Your task to perform on an android device: search for starred emails in the gmail app Image 0: 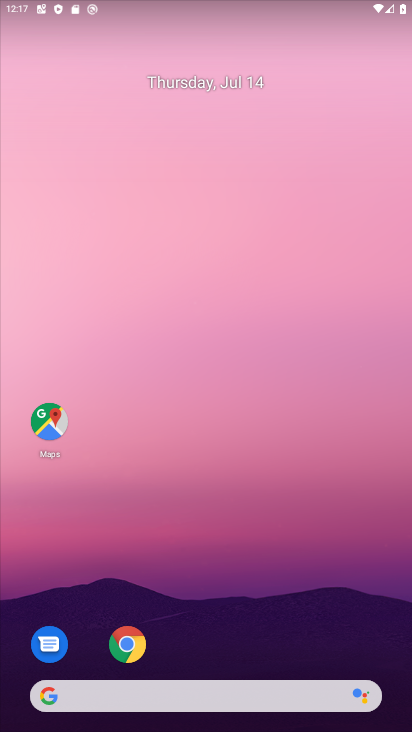
Step 0: drag from (326, 679) to (395, 14)
Your task to perform on an android device: search for starred emails in the gmail app Image 1: 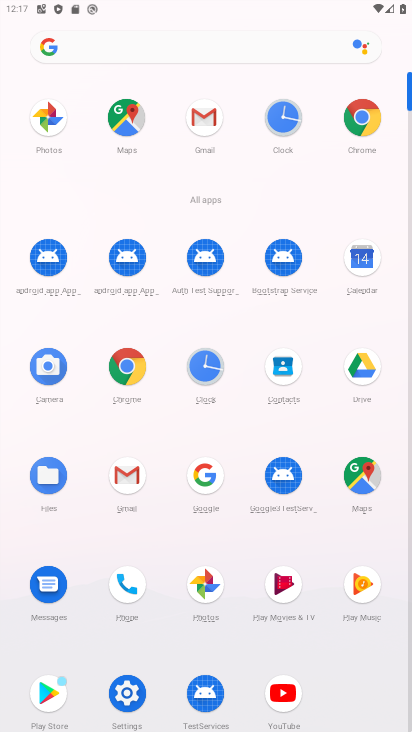
Step 1: click (123, 476)
Your task to perform on an android device: search for starred emails in the gmail app Image 2: 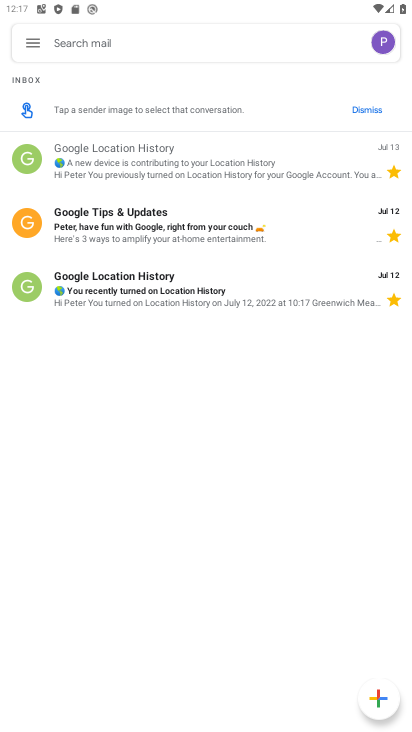
Step 2: press home button
Your task to perform on an android device: search for starred emails in the gmail app Image 3: 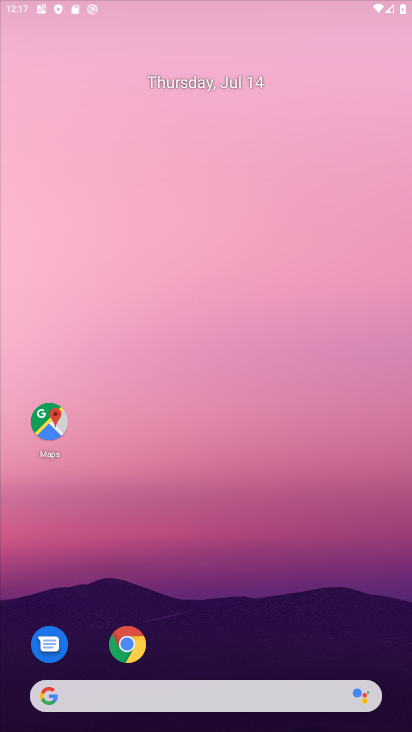
Step 3: drag from (99, 689) to (125, 3)
Your task to perform on an android device: search for starred emails in the gmail app Image 4: 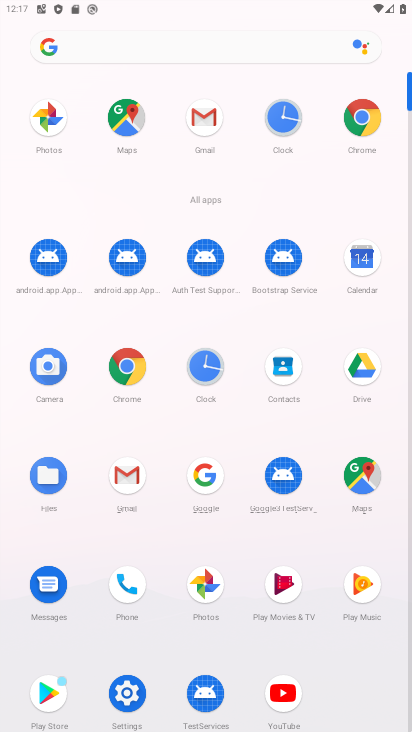
Step 4: click (145, 478)
Your task to perform on an android device: search for starred emails in the gmail app Image 5: 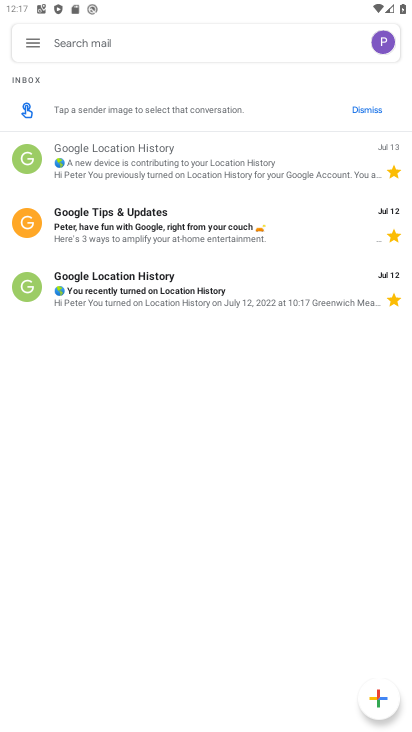
Step 5: press home button
Your task to perform on an android device: search for starred emails in the gmail app Image 6: 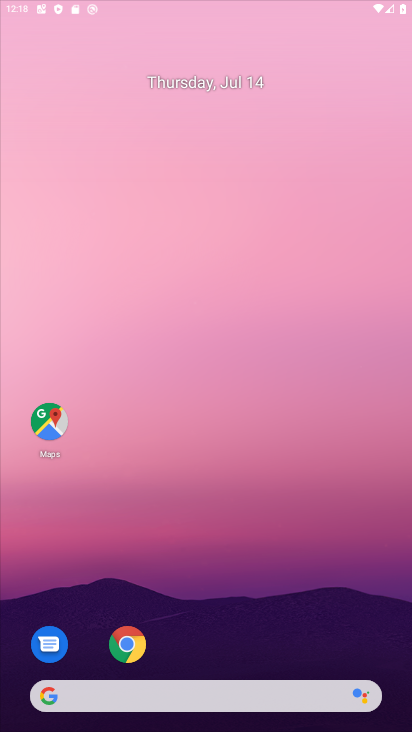
Step 6: drag from (201, 622) to (221, 7)
Your task to perform on an android device: search for starred emails in the gmail app Image 7: 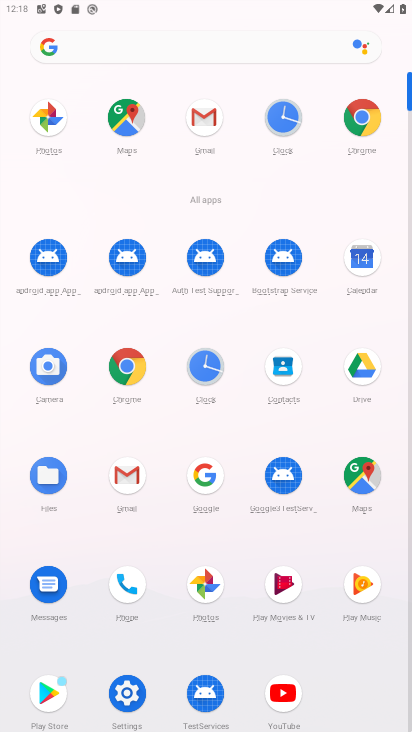
Step 7: click (128, 467)
Your task to perform on an android device: search for starred emails in the gmail app Image 8: 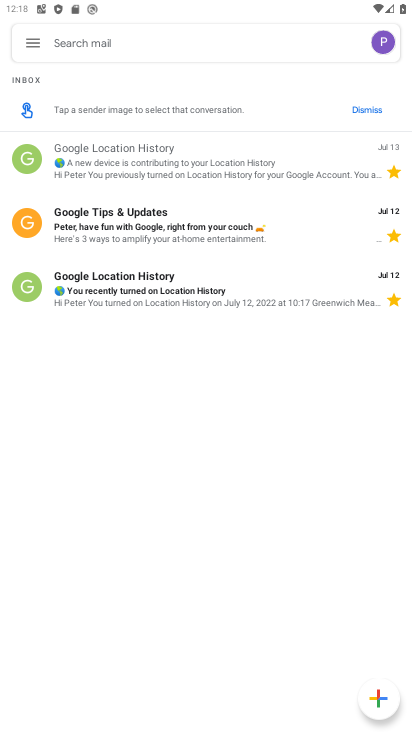
Step 8: click (35, 34)
Your task to perform on an android device: search for starred emails in the gmail app Image 9: 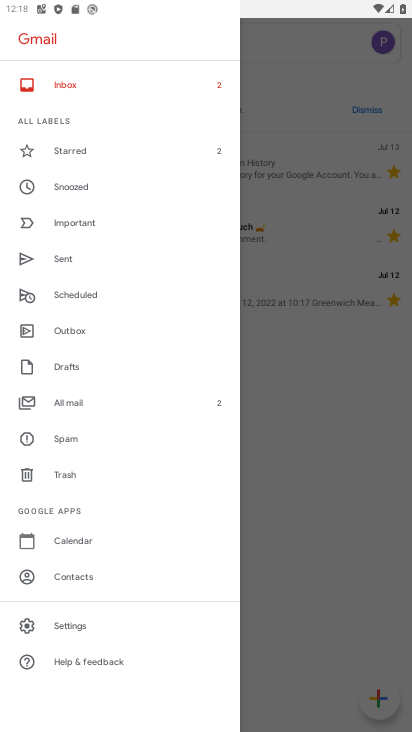
Step 9: click (69, 205)
Your task to perform on an android device: search for starred emails in the gmail app Image 10: 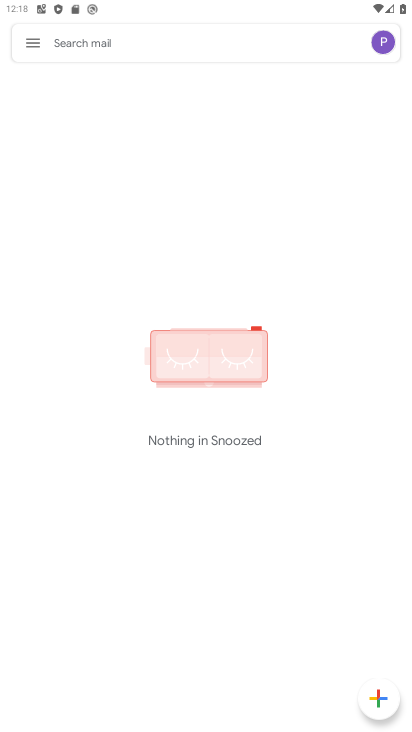
Step 10: task complete